Your task to perform on an android device: Go to Yahoo.com Image 0: 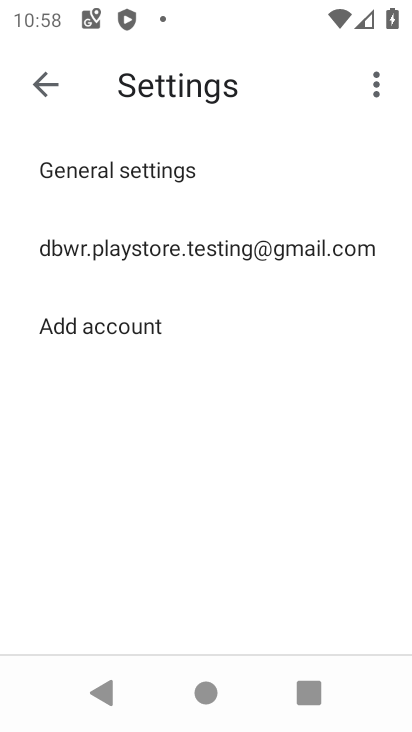
Step 0: press home button
Your task to perform on an android device: Go to Yahoo.com Image 1: 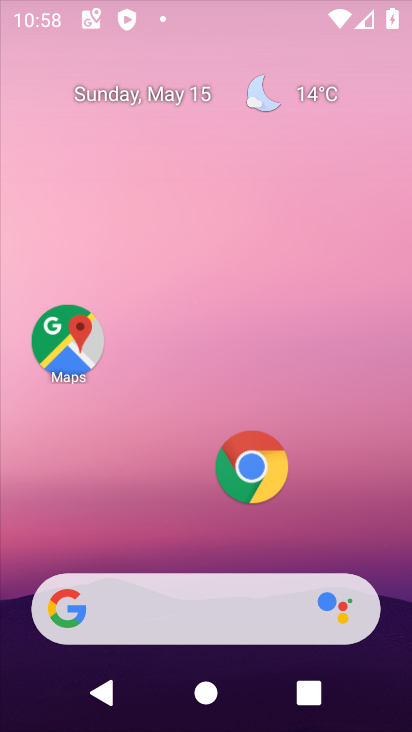
Step 1: drag from (178, 567) to (246, 147)
Your task to perform on an android device: Go to Yahoo.com Image 2: 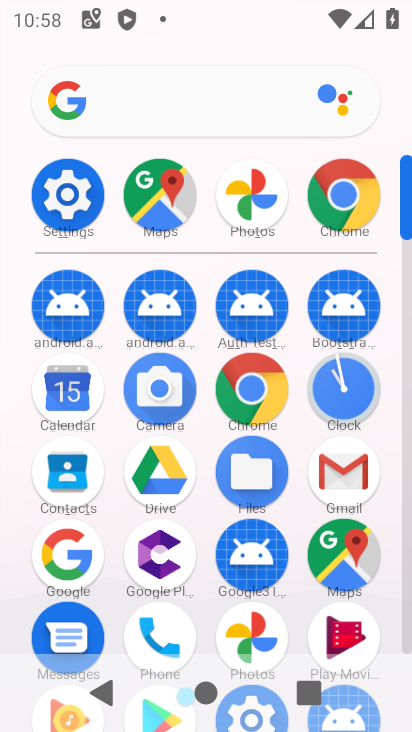
Step 2: click (171, 111)
Your task to perform on an android device: Go to Yahoo.com Image 3: 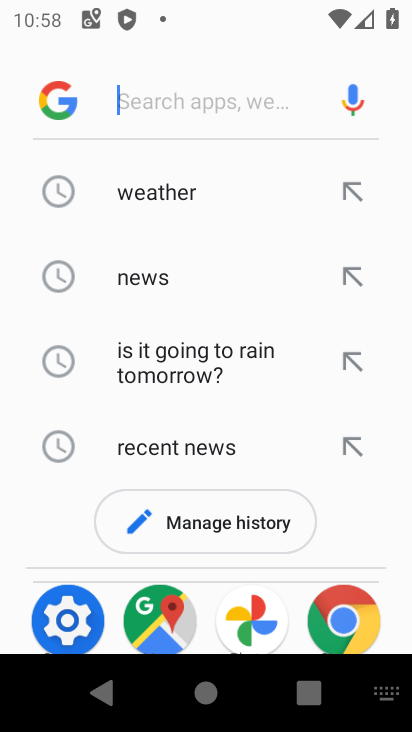
Step 3: type "yahoo.com"
Your task to perform on an android device: Go to Yahoo.com Image 4: 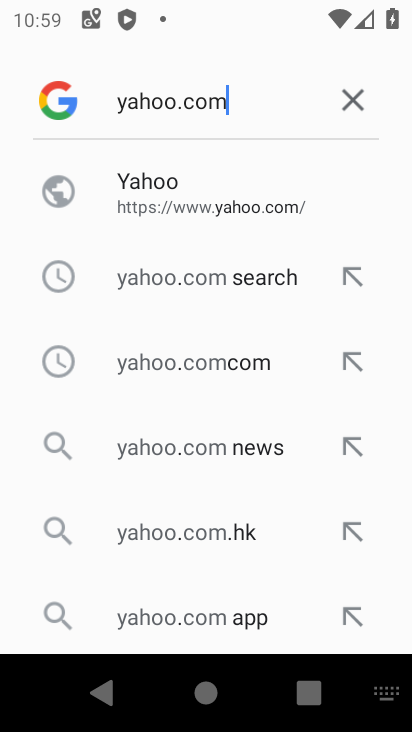
Step 4: click (168, 183)
Your task to perform on an android device: Go to Yahoo.com Image 5: 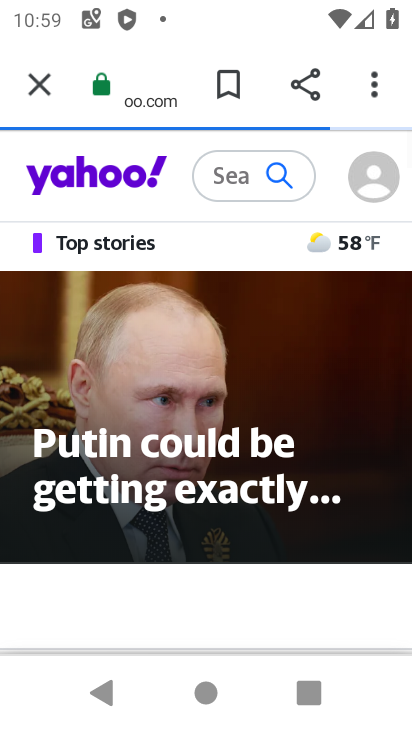
Step 5: task complete